Your task to perform on an android device: allow cookies in the chrome app Image 0: 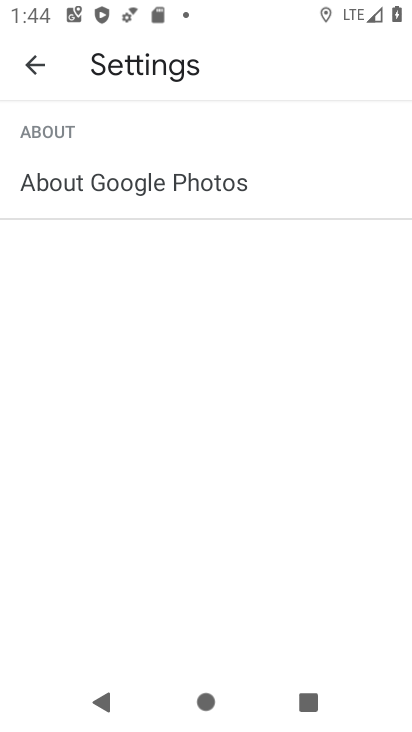
Step 0: press home button
Your task to perform on an android device: allow cookies in the chrome app Image 1: 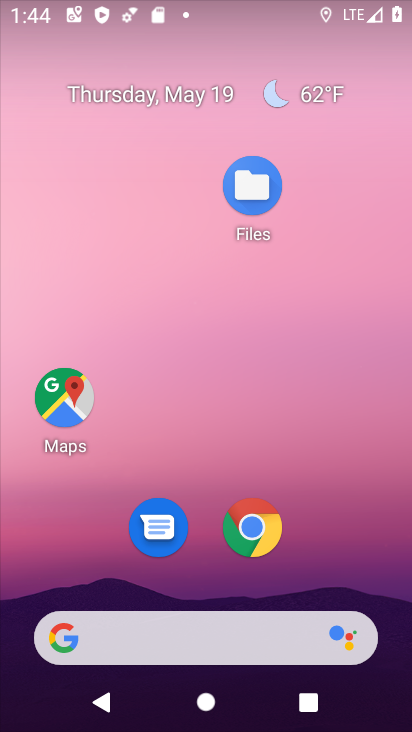
Step 1: drag from (315, 588) to (342, 134)
Your task to perform on an android device: allow cookies in the chrome app Image 2: 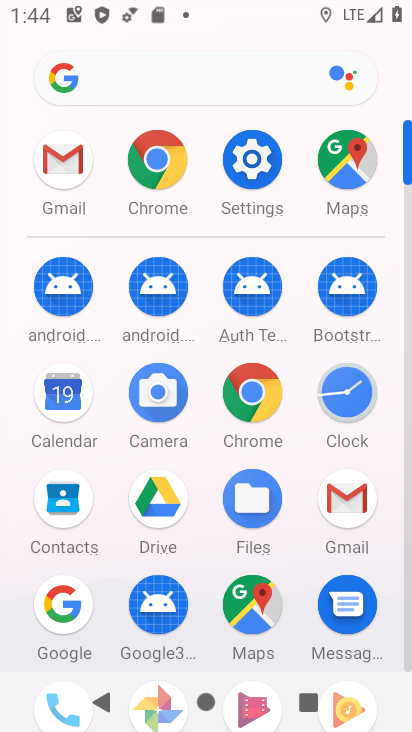
Step 2: click (266, 390)
Your task to perform on an android device: allow cookies in the chrome app Image 3: 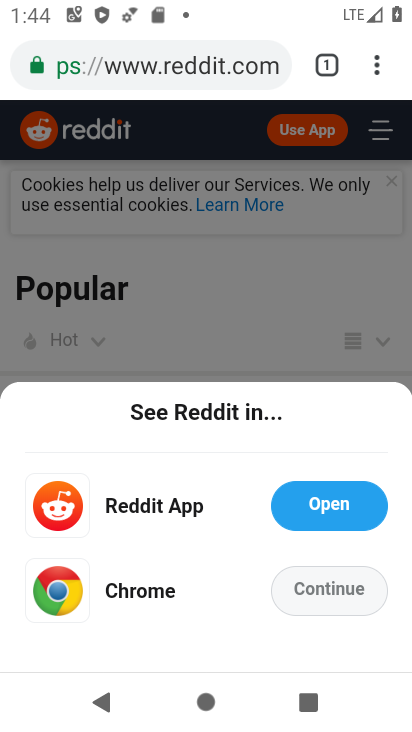
Step 3: drag from (384, 70) to (264, 591)
Your task to perform on an android device: allow cookies in the chrome app Image 4: 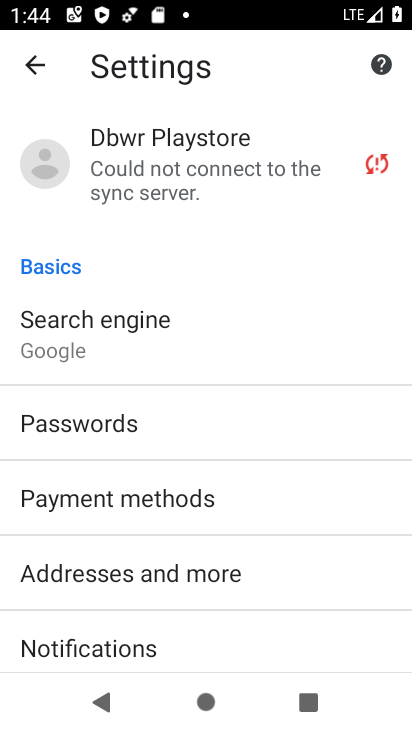
Step 4: drag from (282, 620) to (294, 241)
Your task to perform on an android device: allow cookies in the chrome app Image 5: 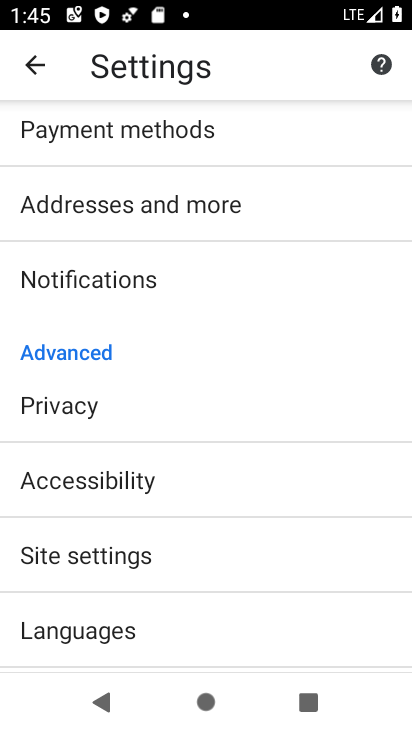
Step 5: click (191, 555)
Your task to perform on an android device: allow cookies in the chrome app Image 6: 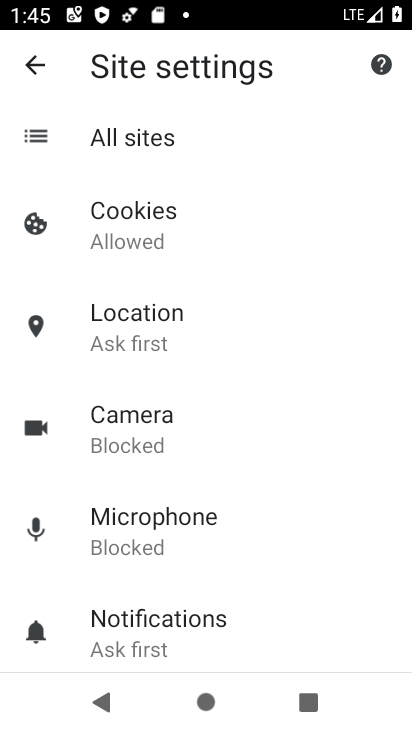
Step 6: click (164, 138)
Your task to perform on an android device: allow cookies in the chrome app Image 7: 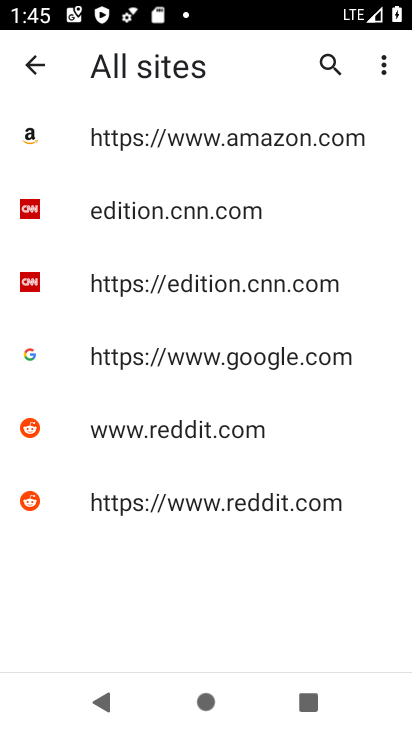
Step 7: task complete